Your task to perform on an android device: allow cookies in the chrome app Image 0: 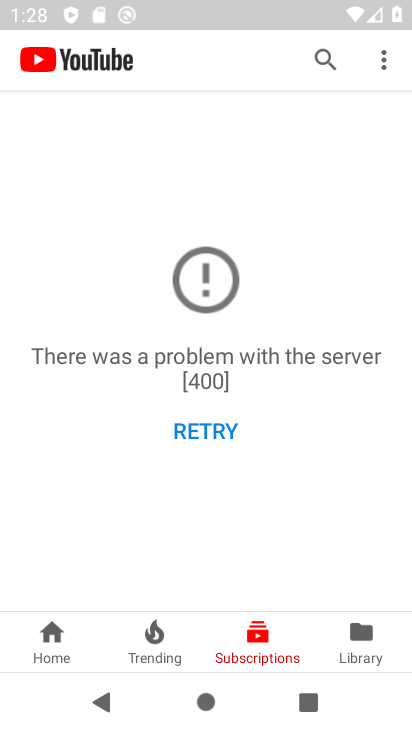
Step 0: drag from (196, 597) to (253, 6)
Your task to perform on an android device: allow cookies in the chrome app Image 1: 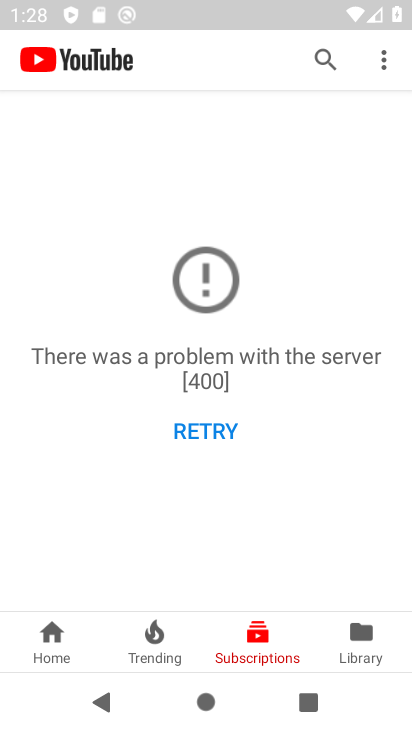
Step 1: press home button
Your task to perform on an android device: allow cookies in the chrome app Image 2: 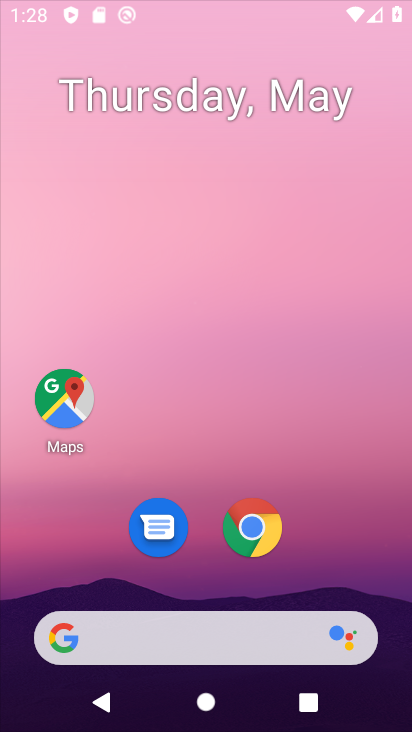
Step 2: drag from (191, 598) to (252, 228)
Your task to perform on an android device: allow cookies in the chrome app Image 3: 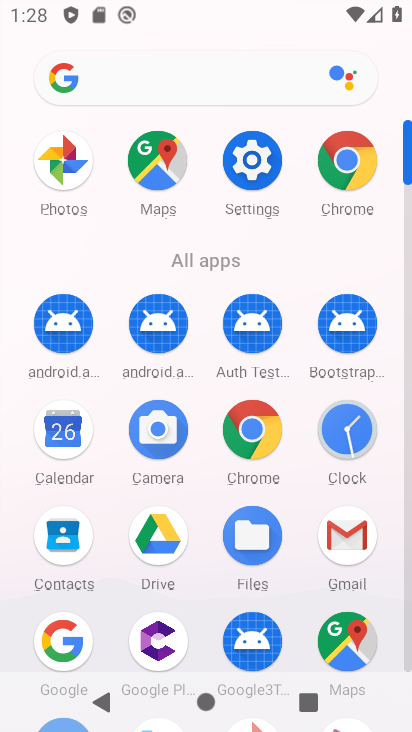
Step 3: click (252, 428)
Your task to perform on an android device: allow cookies in the chrome app Image 4: 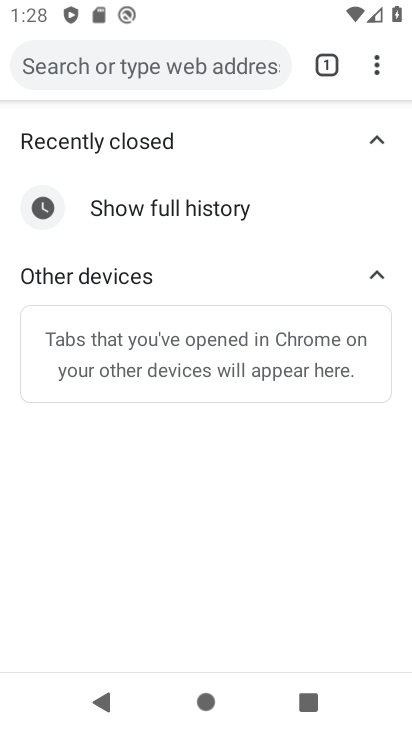
Step 4: click (384, 61)
Your task to perform on an android device: allow cookies in the chrome app Image 5: 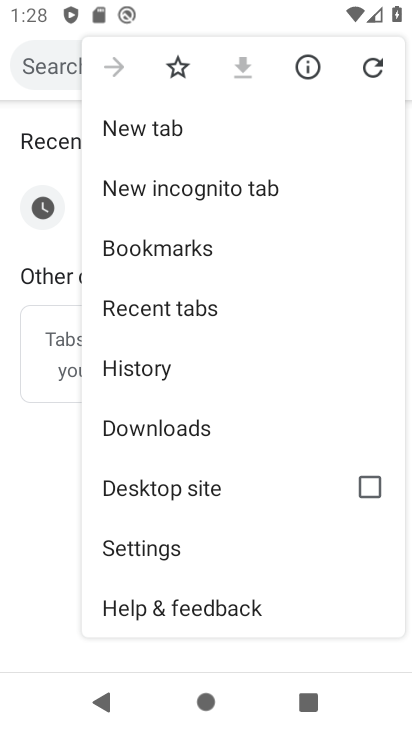
Step 5: click (156, 558)
Your task to perform on an android device: allow cookies in the chrome app Image 6: 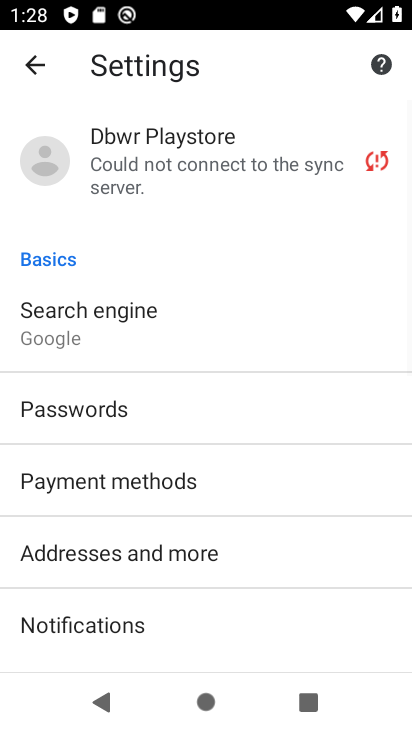
Step 6: drag from (212, 574) to (281, 147)
Your task to perform on an android device: allow cookies in the chrome app Image 7: 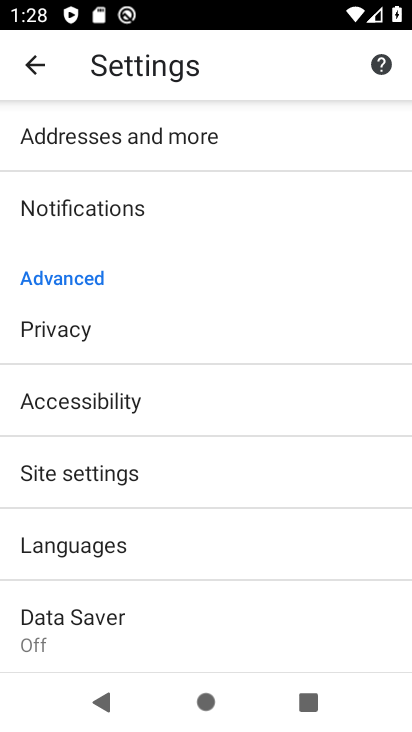
Step 7: click (178, 475)
Your task to perform on an android device: allow cookies in the chrome app Image 8: 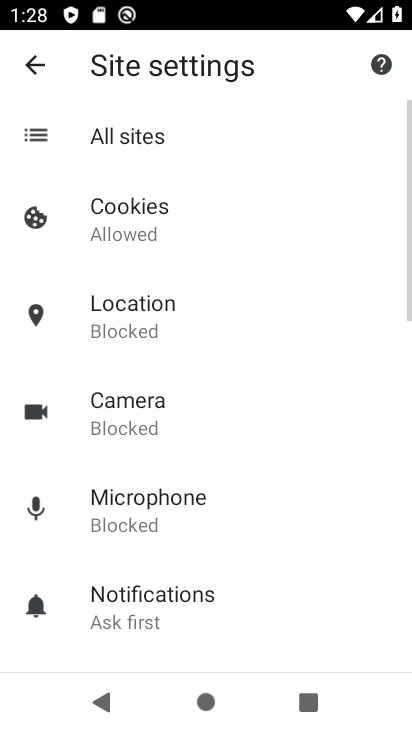
Step 8: click (194, 226)
Your task to perform on an android device: allow cookies in the chrome app Image 9: 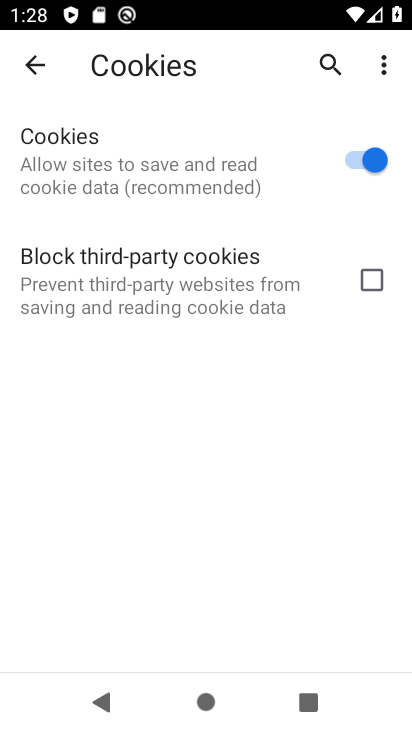
Step 9: task complete